Your task to perform on an android device: turn off wifi Image 0: 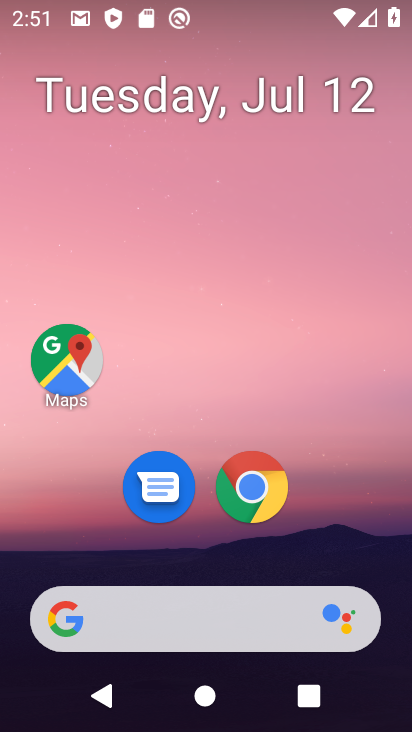
Step 0: drag from (264, 518) to (298, 100)
Your task to perform on an android device: turn off wifi Image 1: 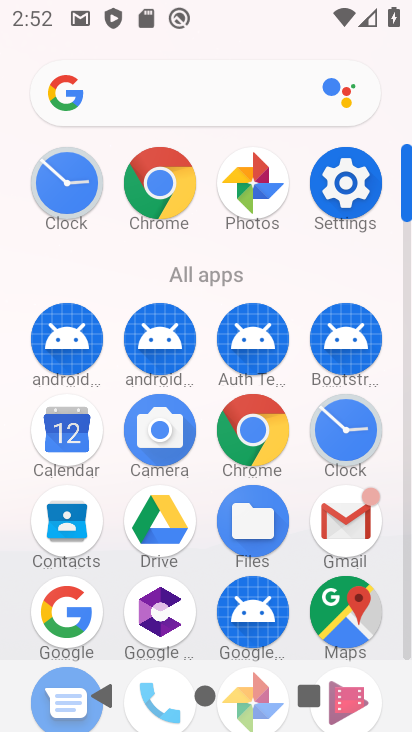
Step 1: click (342, 187)
Your task to perform on an android device: turn off wifi Image 2: 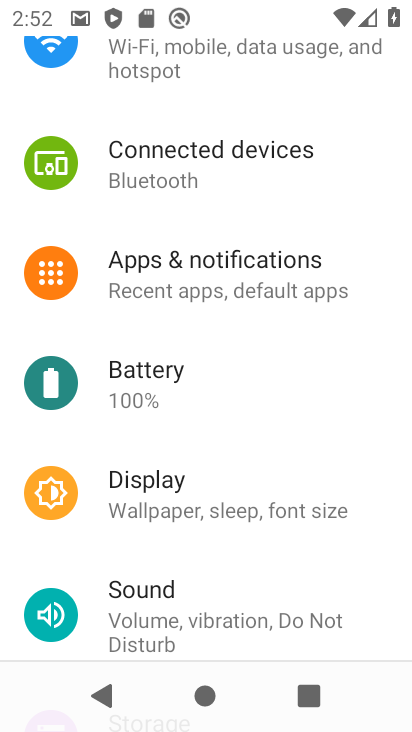
Step 2: drag from (228, 240) to (221, 636)
Your task to perform on an android device: turn off wifi Image 3: 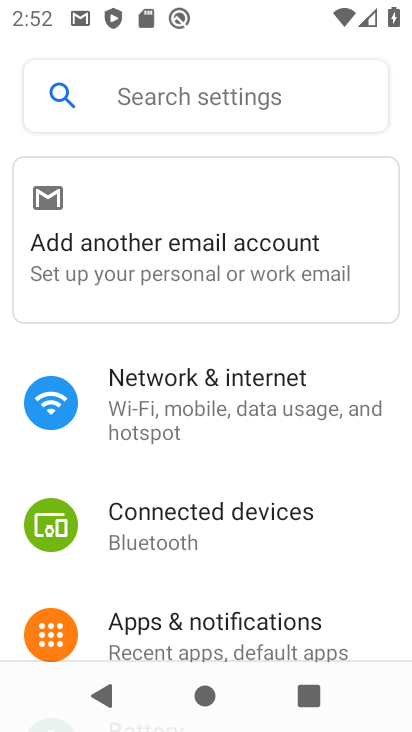
Step 3: drag from (202, 533) to (213, 222)
Your task to perform on an android device: turn off wifi Image 4: 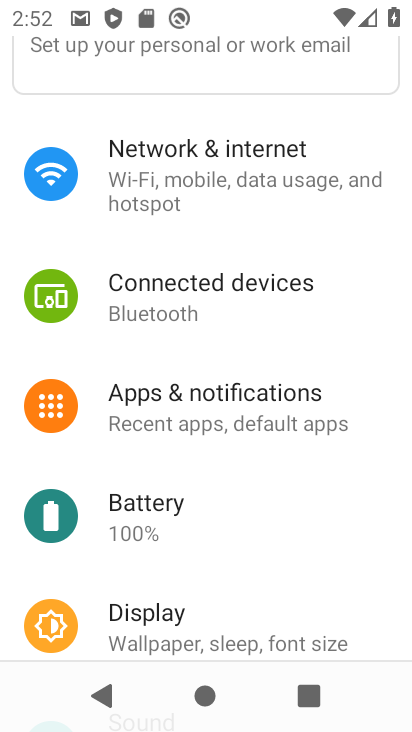
Step 4: click (187, 195)
Your task to perform on an android device: turn off wifi Image 5: 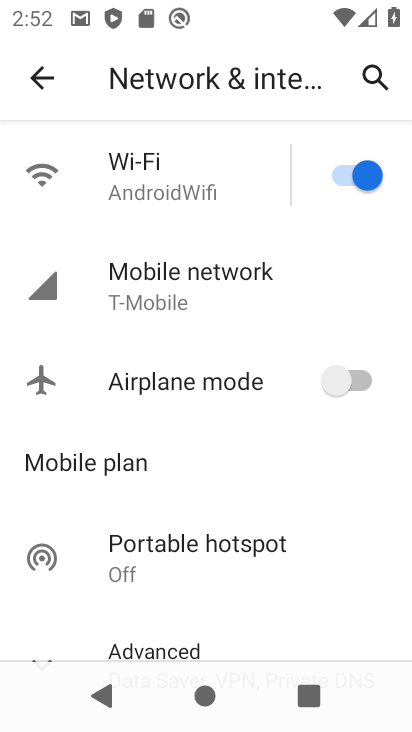
Step 5: click (341, 183)
Your task to perform on an android device: turn off wifi Image 6: 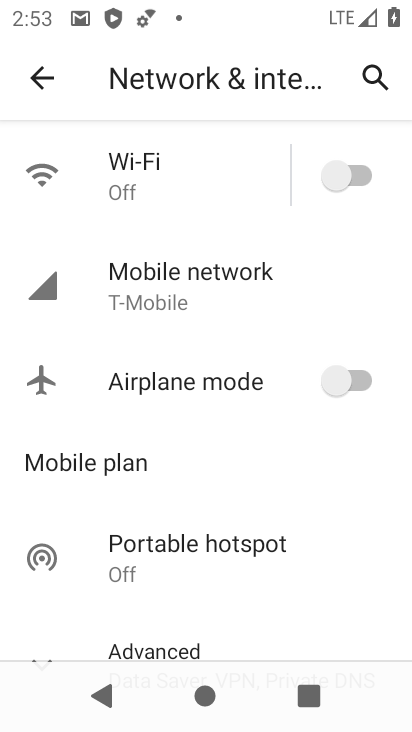
Step 6: task complete